Your task to perform on an android device: Go to Amazon Image 0: 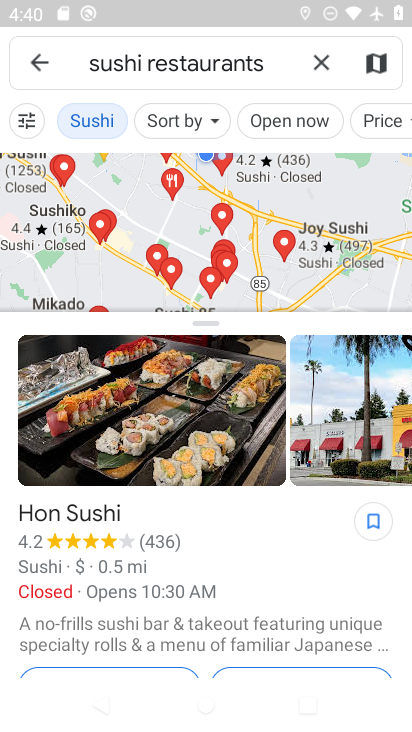
Step 0: press home button
Your task to perform on an android device: Go to Amazon Image 1: 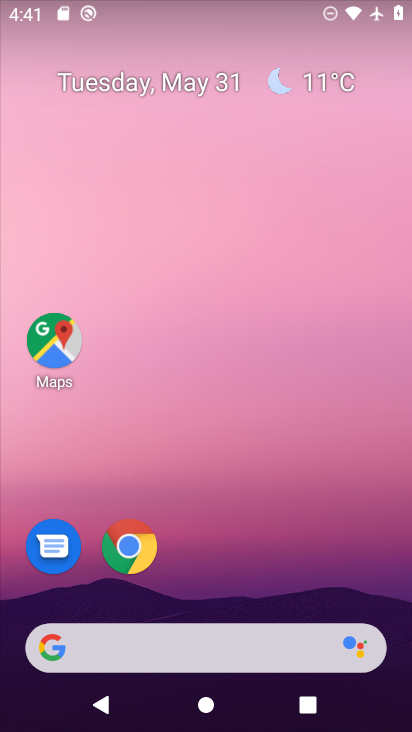
Step 1: click (137, 561)
Your task to perform on an android device: Go to Amazon Image 2: 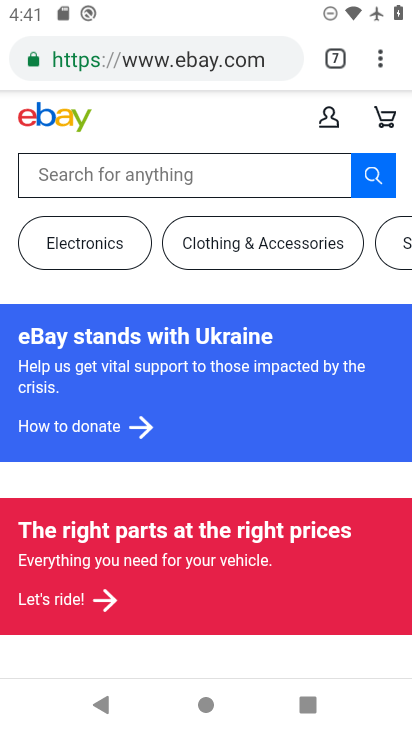
Step 2: click (337, 56)
Your task to perform on an android device: Go to Amazon Image 3: 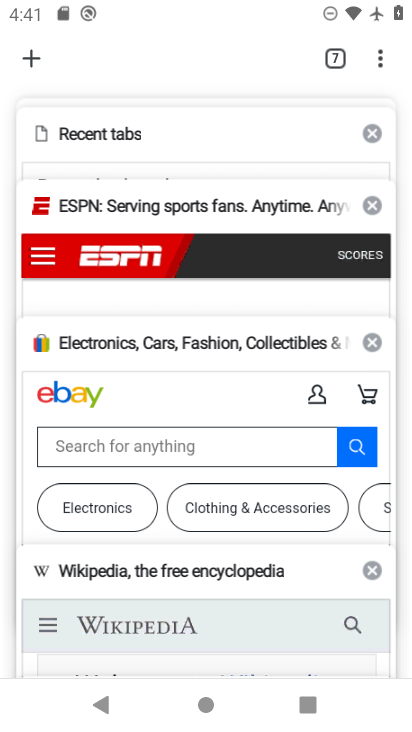
Step 3: drag from (196, 420) to (196, 79)
Your task to perform on an android device: Go to Amazon Image 4: 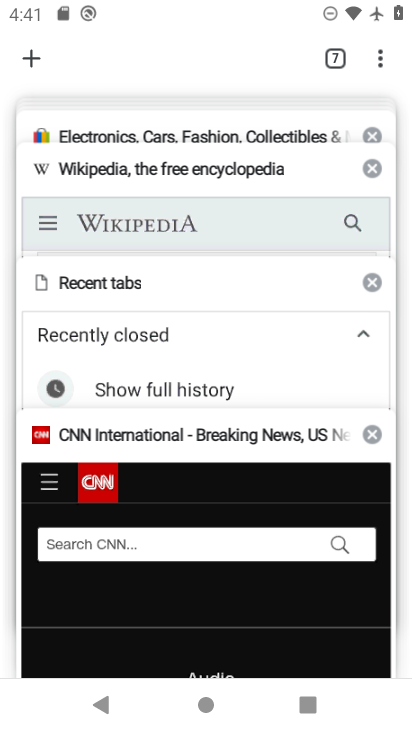
Step 4: drag from (214, 182) to (210, 680)
Your task to perform on an android device: Go to Amazon Image 5: 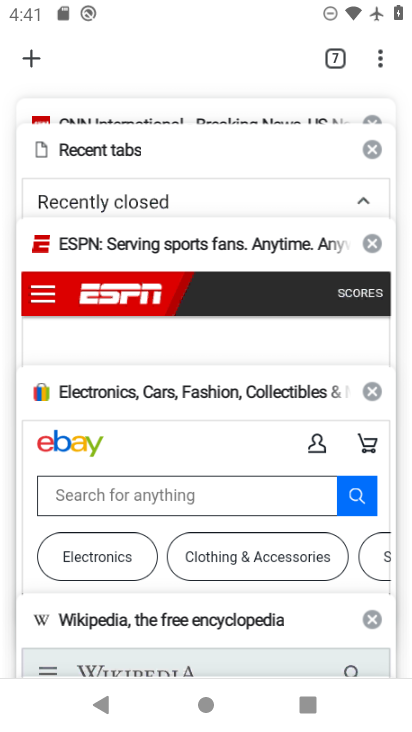
Step 5: click (37, 56)
Your task to perform on an android device: Go to Amazon Image 6: 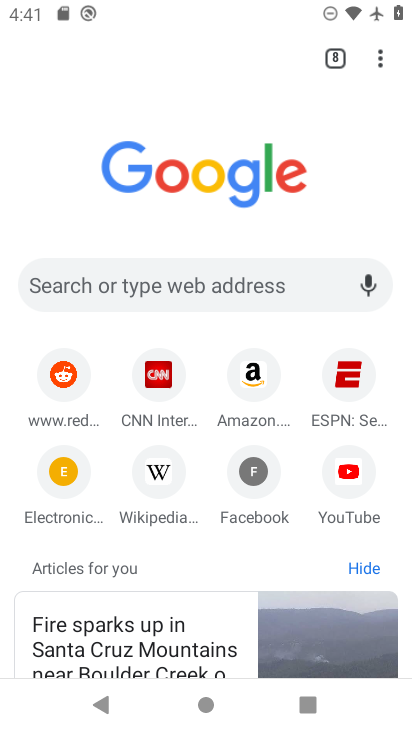
Step 6: click (241, 391)
Your task to perform on an android device: Go to Amazon Image 7: 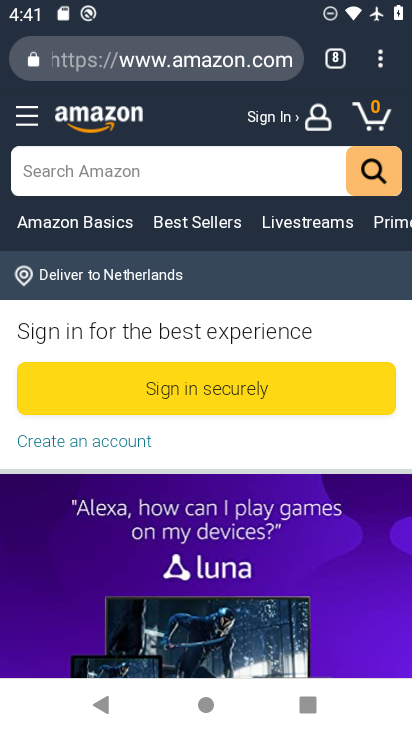
Step 7: task complete